Your task to perform on an android device: move a message to another label in the gmail app Image 0: 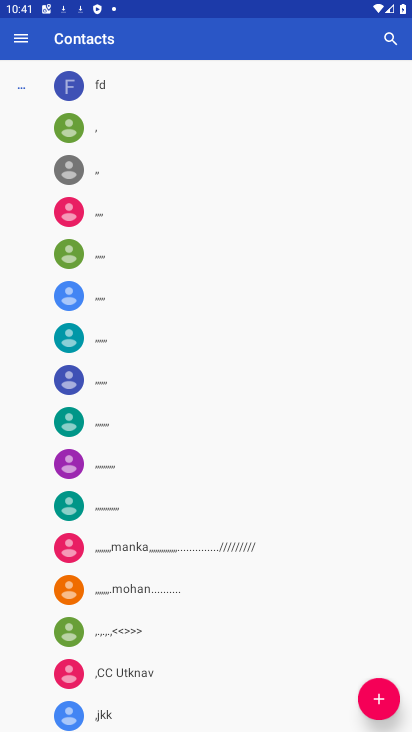
Step 0: press home button
Your task to perform on an android device: move a message to another label in the gmail app Image 1: 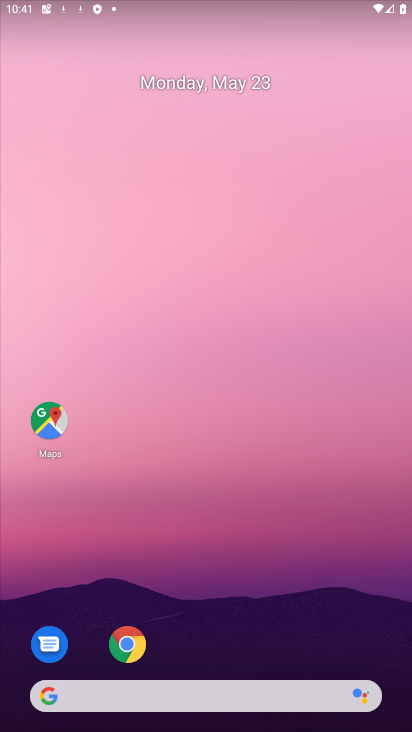
Step 1: drag from (268, 729) to (294, 59)
Your task to perform on an android device: move a message to another label in the gmail app Image 2: 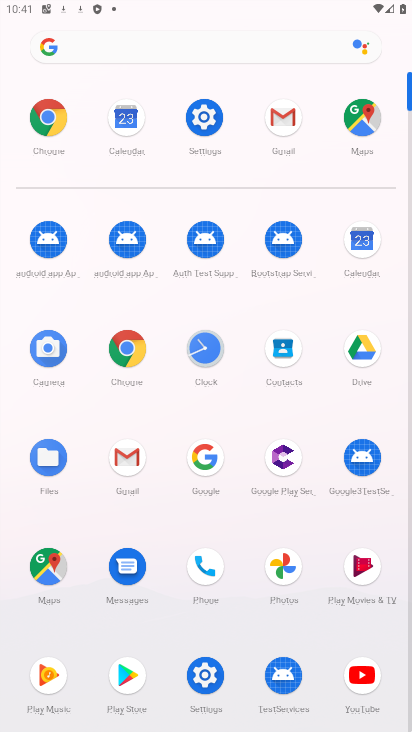
Step 2: click (275, 121)
Your task to perform on an android device: move a message to another label in the gmail app Image 3: 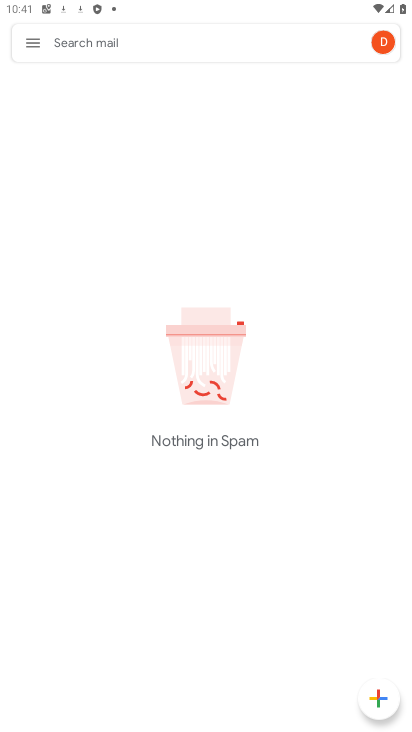
Step 3: click (31, 44)
Your task to perform on an android device: move a message to another label in the gmail app Image 4: 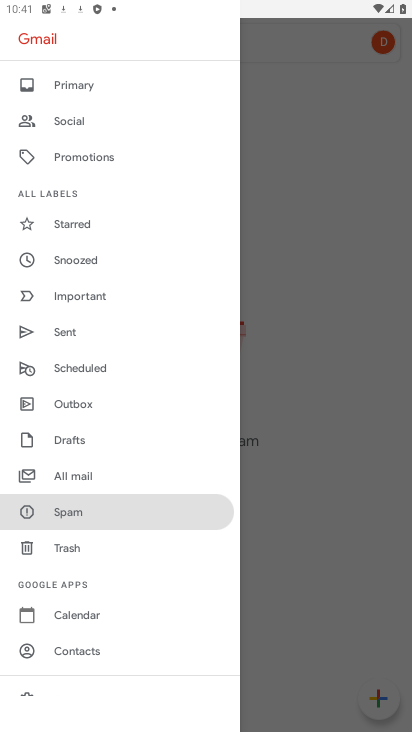
Step 4: drag from (82, 641) to (134, 468)
Your task to perform on an android device: move a message to another label in the gmail app Image 5: 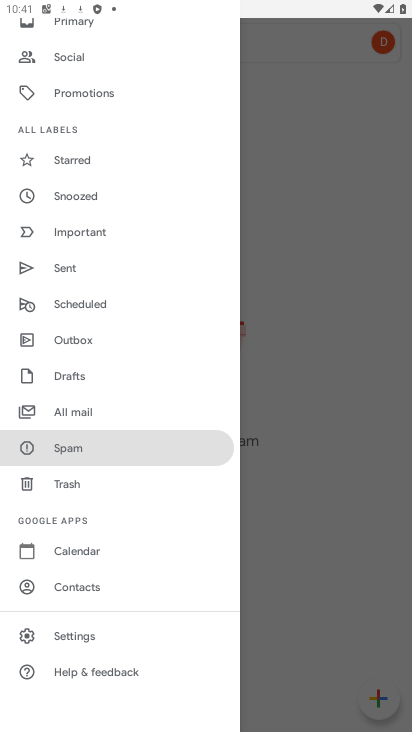
Step 5: click (107, 630)
Your task to perform on an android device: move a message to another label in the gmail app Image 6: 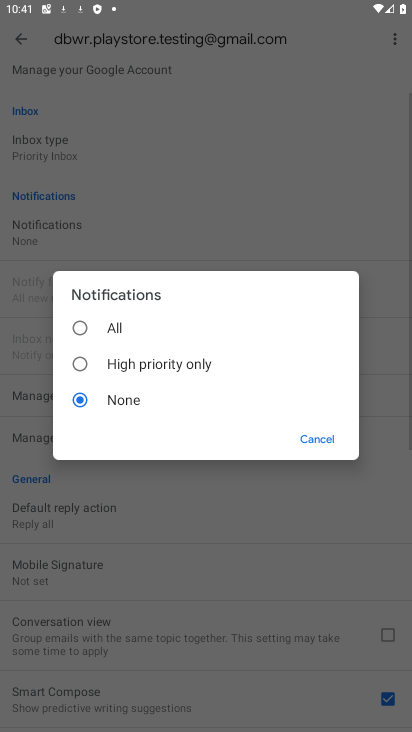
Step 6: click (321, 435)
Your task to perform on an android device: move a message to another label in the gmail app Image 7: 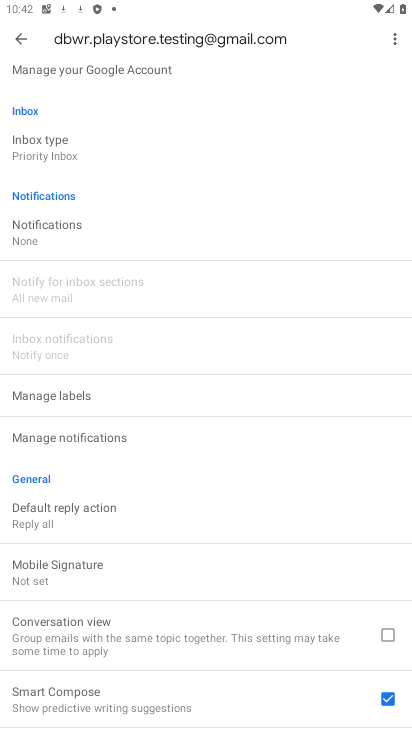
Step 7: click (80, 398)
Your task to perform on an android device: move a message to another label in the gmail app Image 8: 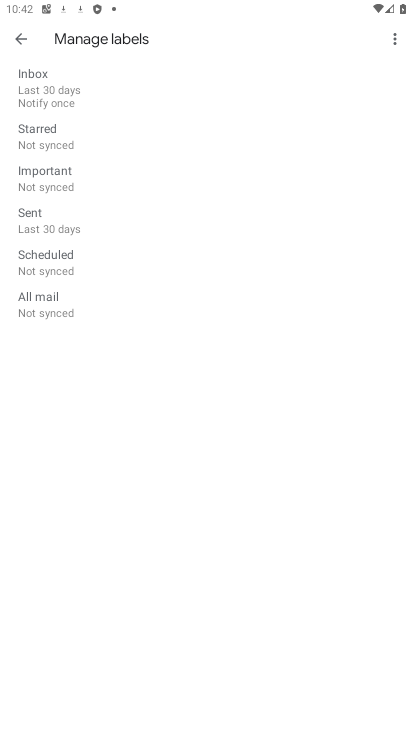
Step 8: click (102, 221)
Your task to perform on an android device: move a message to another label in the gmail app Image 9: 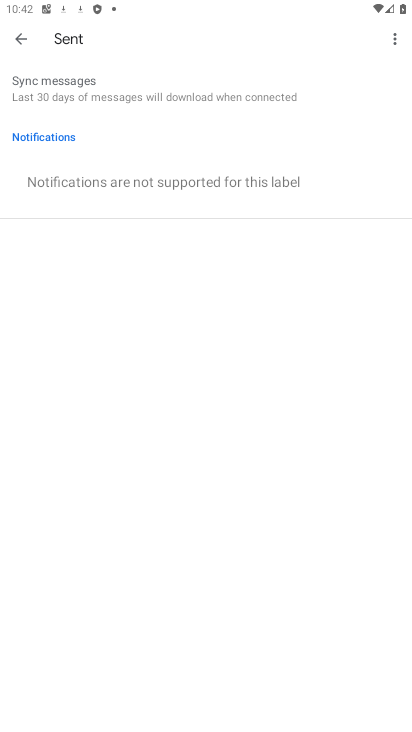
Step 9: task complete